Your task to perform on an android device: Search for a new highlighter Image 0: 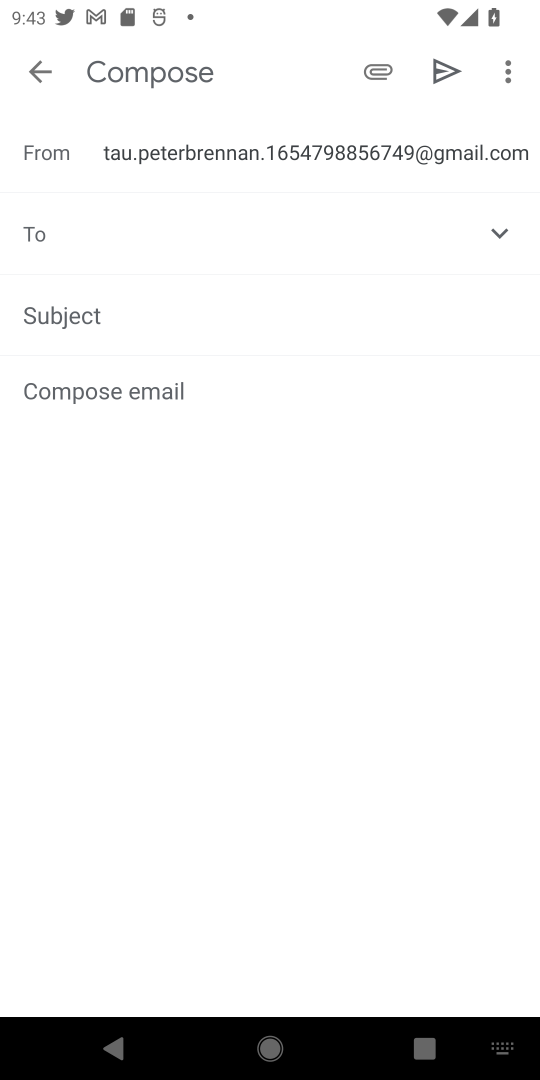
Step 0: press home button
Your task to perform on an android device: Search for a new highlighter Image 1: 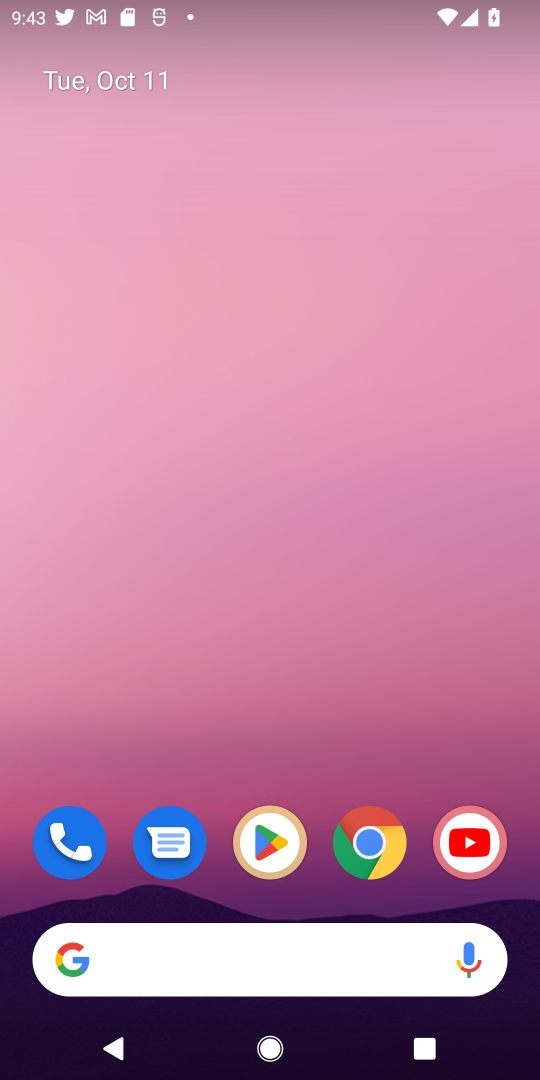
Step 1: click (387, 838)
Your task to perform on an android device: Search for a new highlighter Image 2: 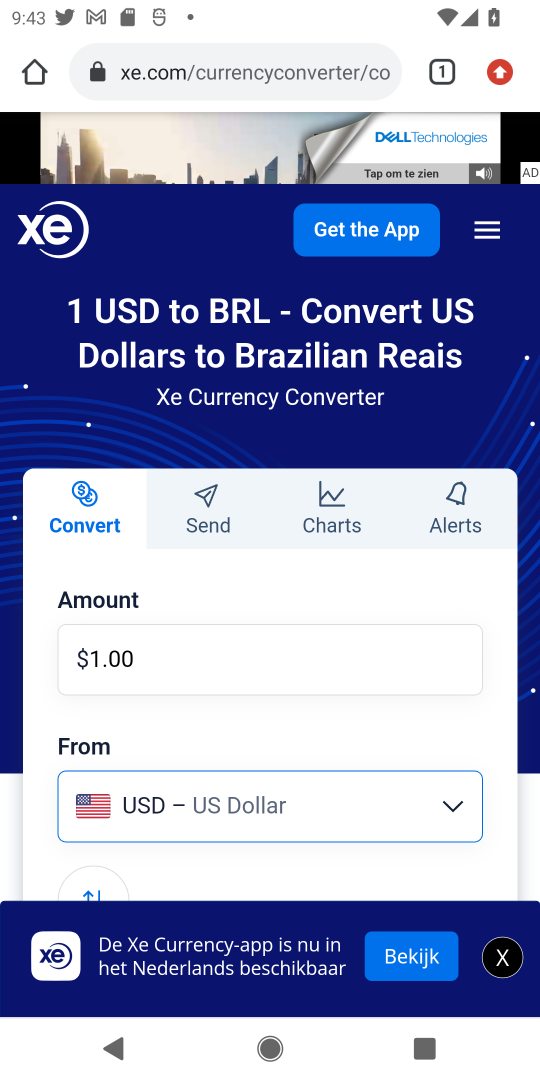
Step 2: click (284, 77)
Your task to perform on an android device: Search for a new highlighter Image 3: 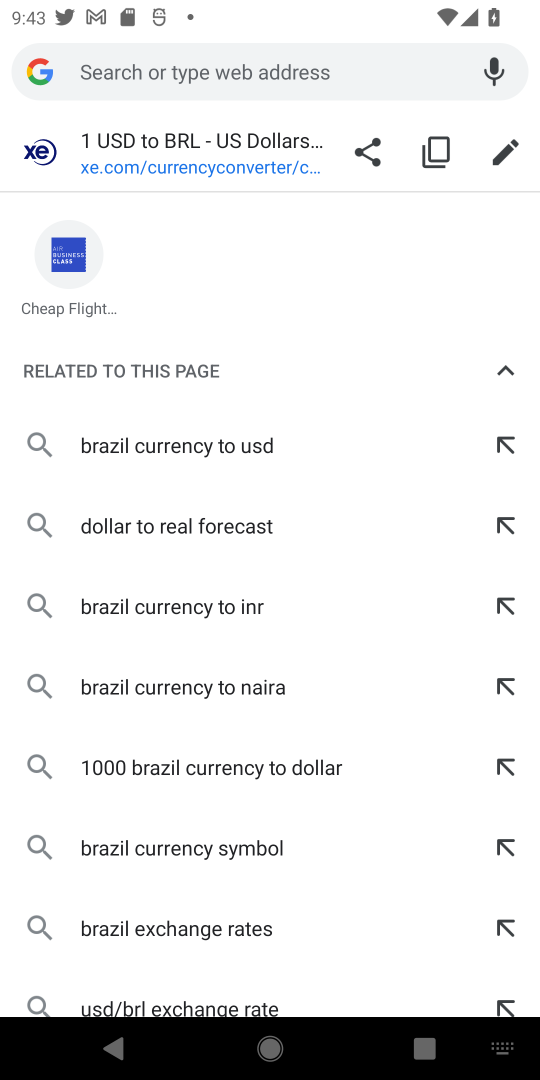
Step 3: type "new lighter"
Your task to perform on an android device: Search for a new highlighter Image 4: 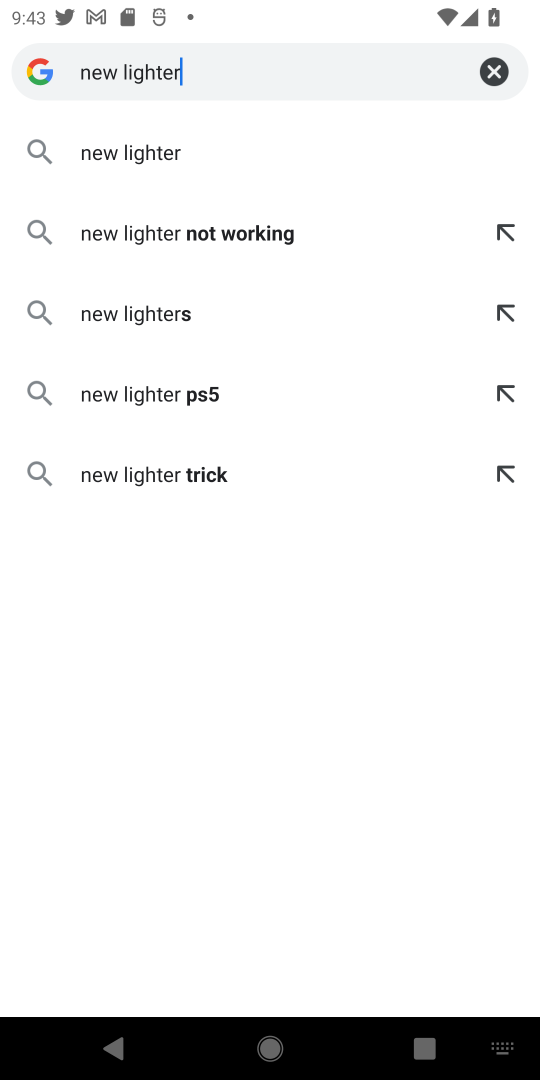
Step 4: click (166, 147)
Your task to perform on an android device: Search for a new highlighter Image 5: 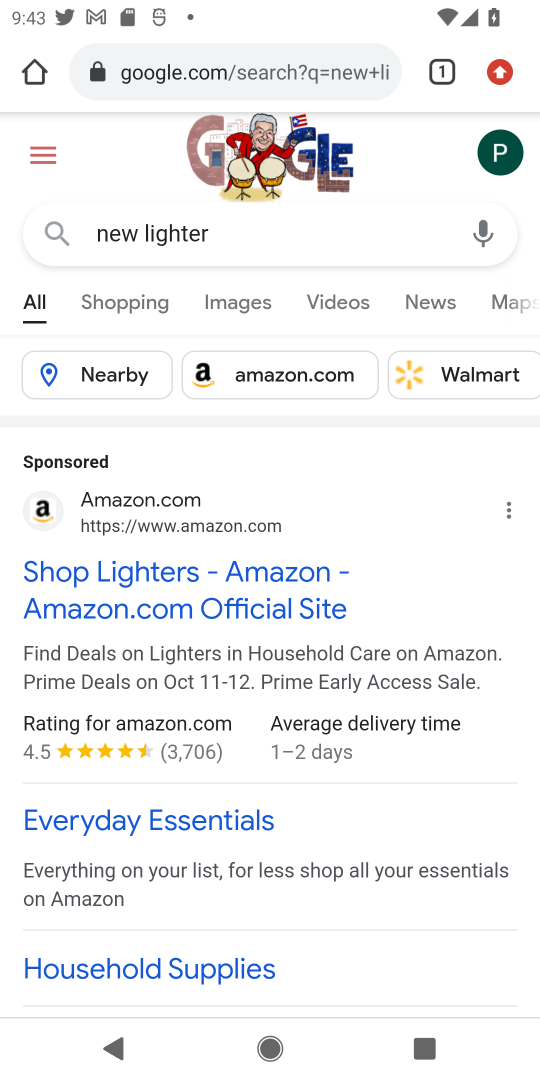
Step 5: click (109, 571)
Your task to perform on an android device: Search for a new highlighter Image 6: 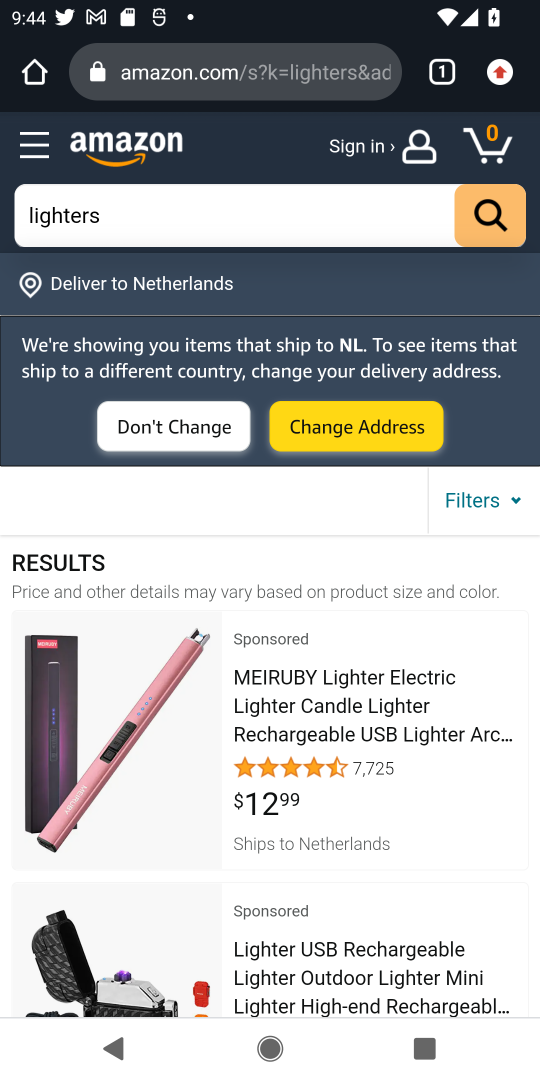
Step 6: task complete